Your task to perform on an android device: change notification settings in the gmail app Image 0: 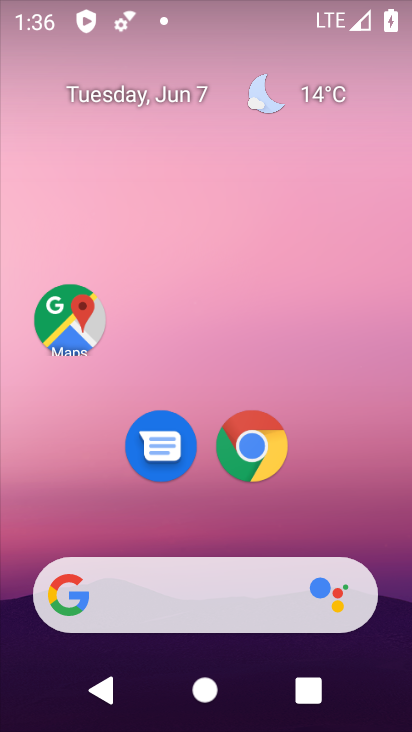
Step 0: drag from (240, 582) to (196, 204)
Your task to perform on an android device: change notification settings in the gmail app Image 1: 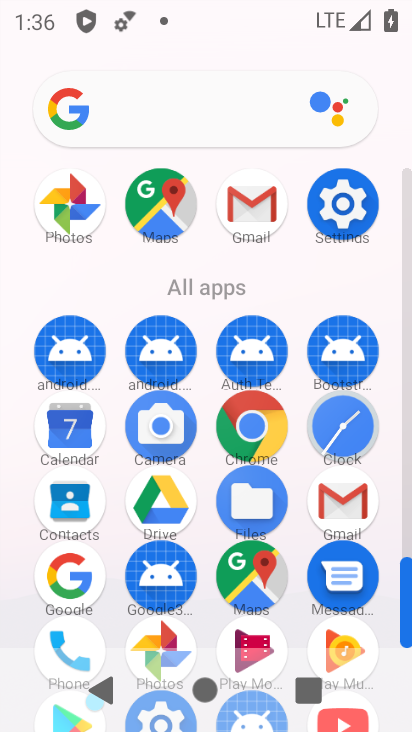
Step 1: click (241, 223)
Your task to perform on an android device: change notification settings in the gmail app Image 2: 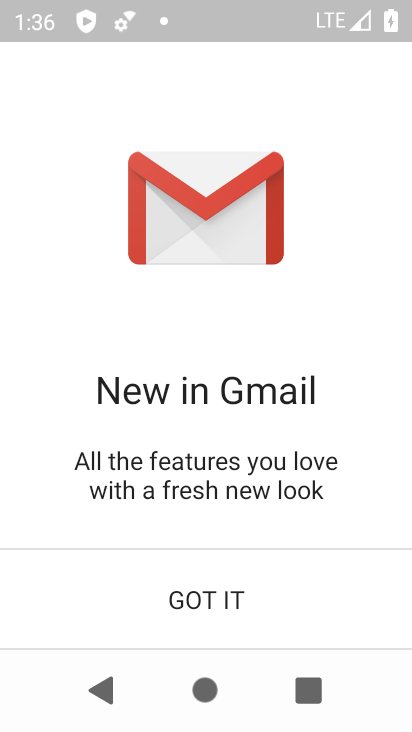
Step 2: click (172, 596)
Your task to perform on an android device: change notification settings in the gmail app Image 3: 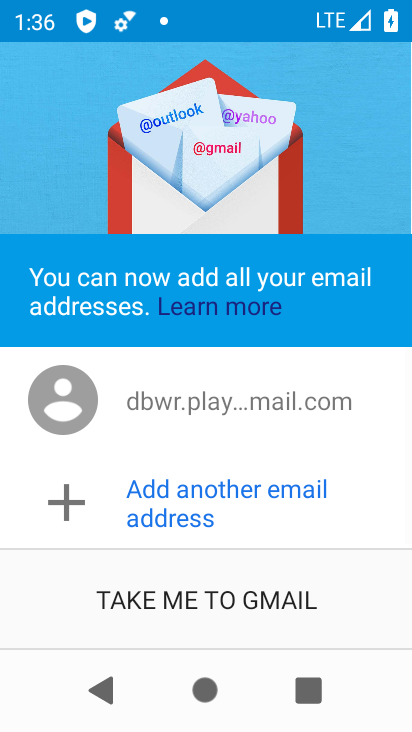
Step 3: click (216, 605)
Your task to perform on an android device: change notification settings in the gmail app Image 4: 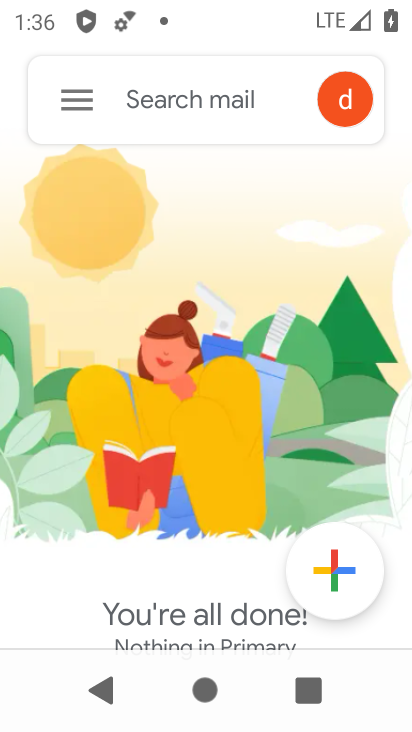
Step 4: click (83, 96)
Your task to perform on an android device: change notification settings in the gmail app Image 5: 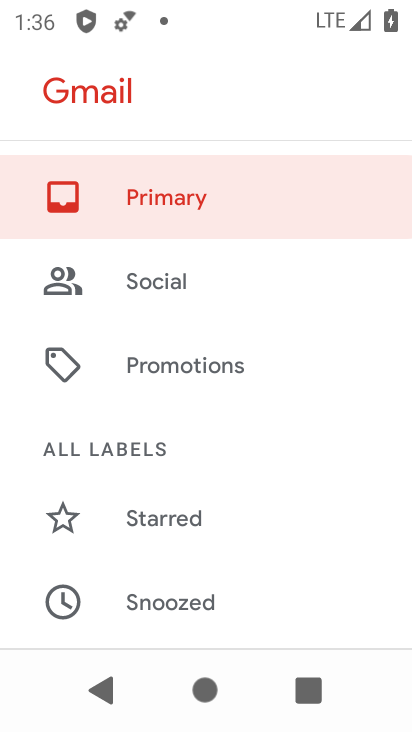
Step 5: drag from (201, 469) to (157, 22)
Your task to perform on an android device: change notification settings in the gmail app Image 6: 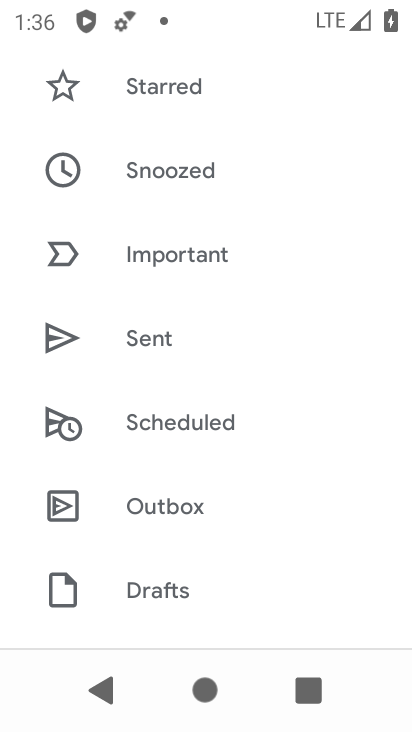
Step 6: drag from (233, 482) to (191, 212)
Your task to perform on an android device: change notification settings in the gmail app Image 7: 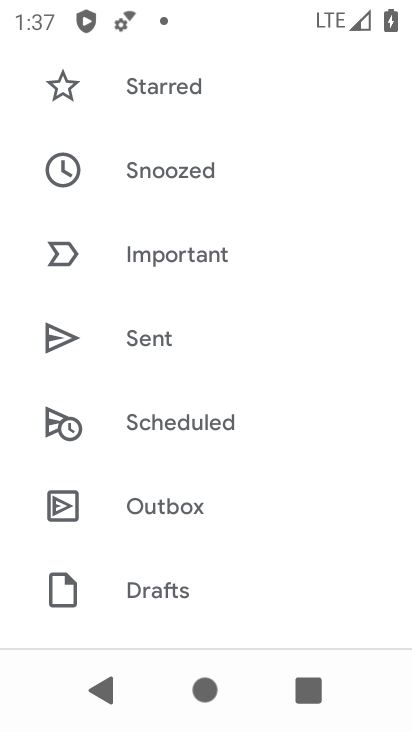
Step 7: drag from (188, 538) to (168, 234)
Your task to perform on an android device: change notification settings in the gmail app Image 8: 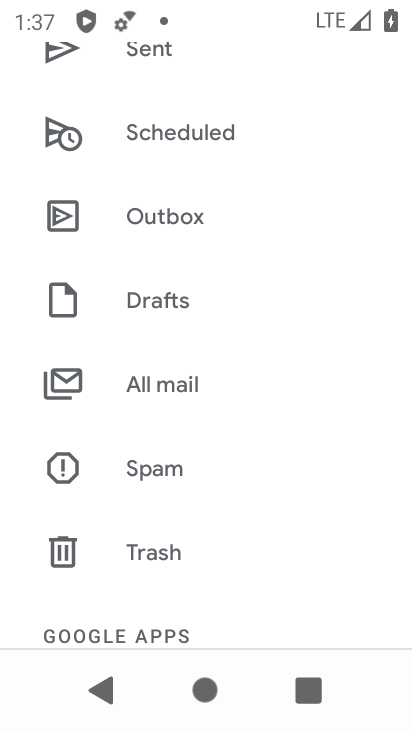
Step 8: drag from (210, 581) to (195, 142)
Your task to perform on an android device: change notification settings in the gmail app Image 9: 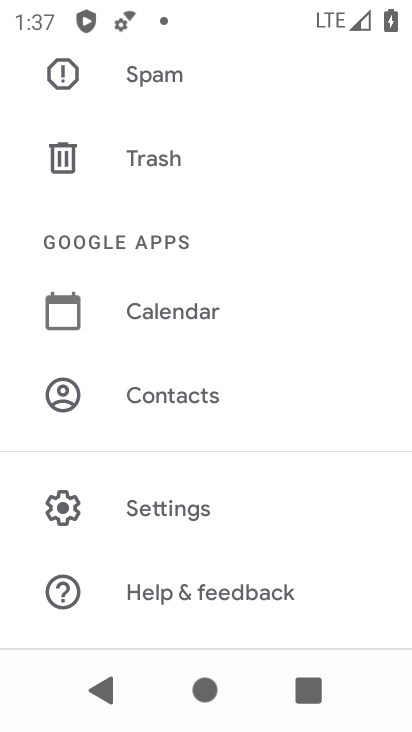
Step 9: click (174, 509)
Your task to perform on an android device: change notification settings in the gmail app Image 10: 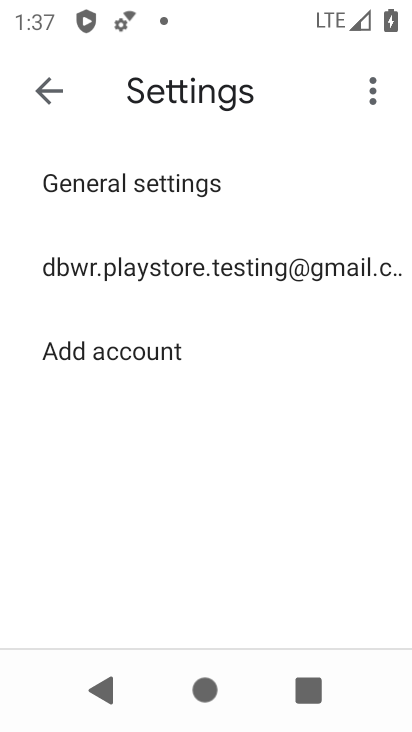
Step 10: click (185, 256)
Your task to perform on an android device: change notification settings in the gmail app Image 11: 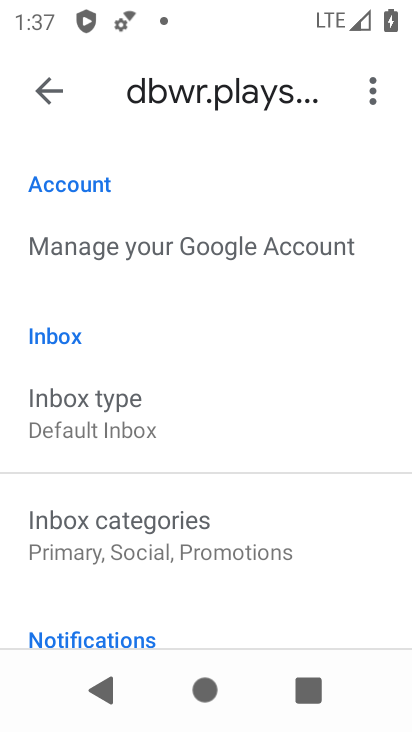
Step 11: drag from (214, 505) to (279, 148)
Your task to perform on an android device: change notification settings in the gmail app Image 12: 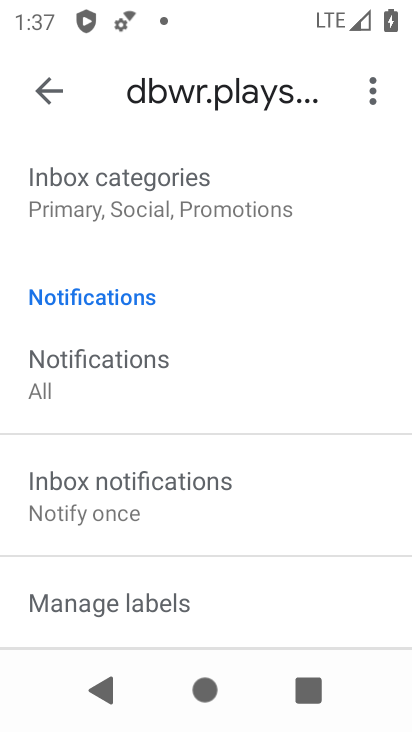
Step 12: drag from (191, 529) to (269, 210)
Your task to perform on an android device: change notification settings in the gmail app Image 13: 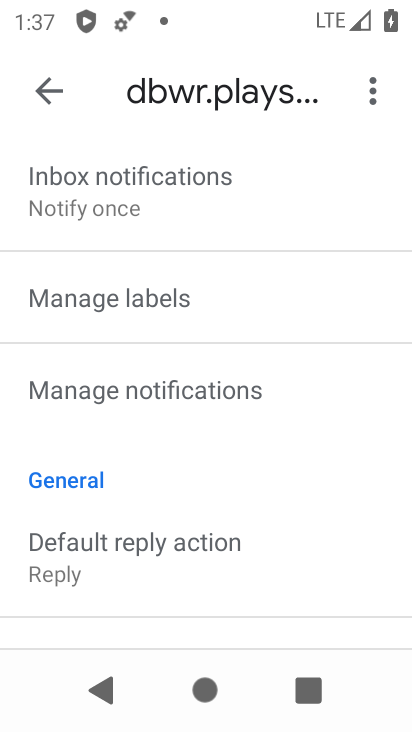
Step 13: click (199, 382)
Your task to perform on an android device: change notification settings in the gmail app Image 14: 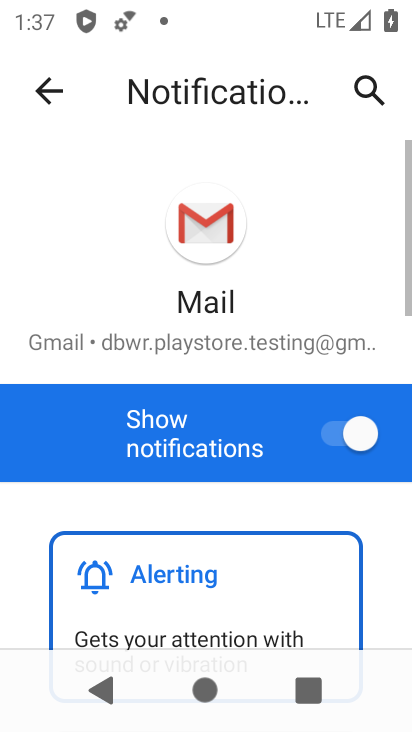
Step 14: click (345, 429)
Your task to perform on an android device: change notification settings in the gmail app Image 15: 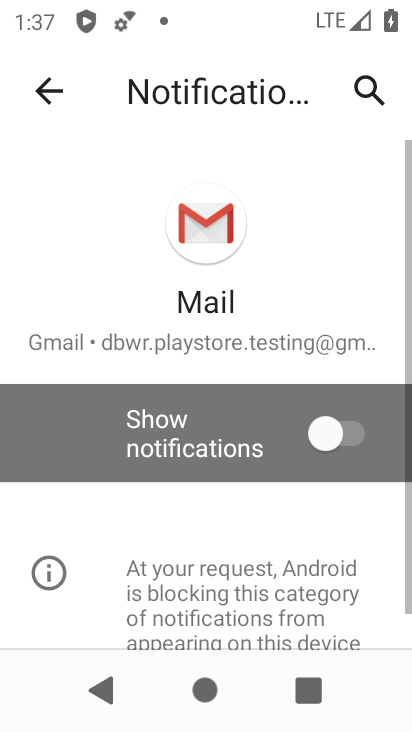
Step 15: task complete